Your task to perform on an android device: Go to Yahoo.com Image 0: 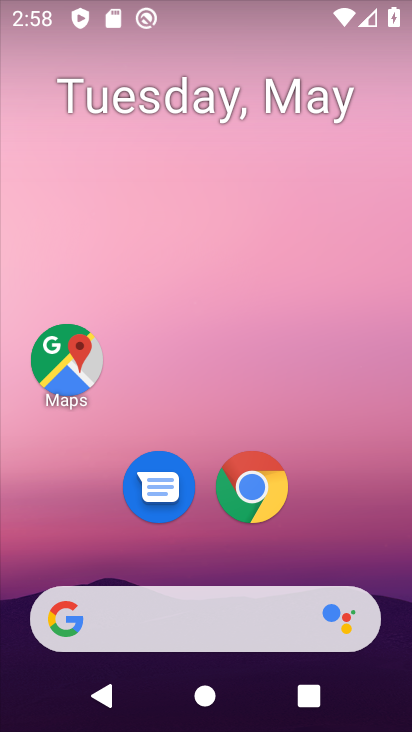
Step 0: drag from (229, 455) to (397, 603)
Your task to perform on an android device: Go to Yahoo.com Image 1: 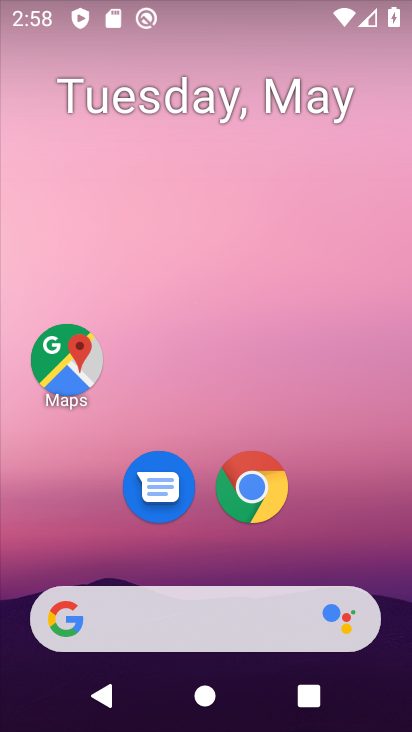
Step 1: drag from (238, 289) to (232, 23)
Your task to perform on an android device: Go to Yahoo.com Image 2: 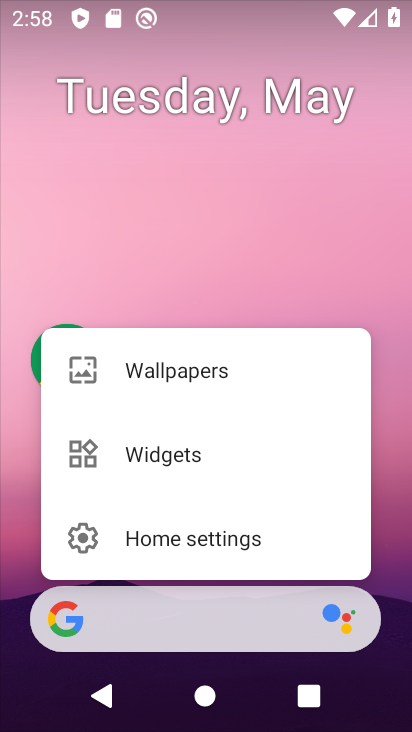
Step 2: click (237, 284)
Your task to perform on an android device: Go to Yahoo.com Image 3: 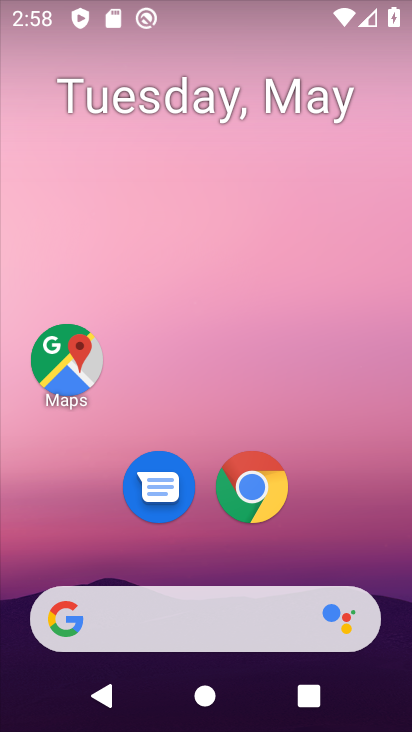
Step 3: drag from (249, 584) to (194, 52)
Your task to perform on an android device: Go to Yahoo.com Image 4: 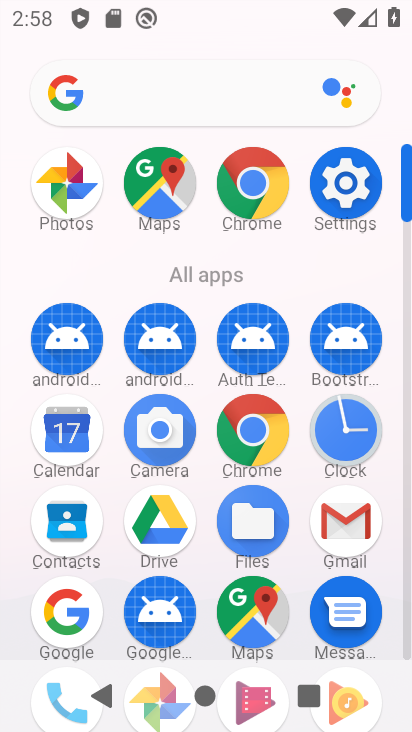
Step 4: click (260, 418)
Your task to perform on an android device: Go to Yahoo.com Image 5: 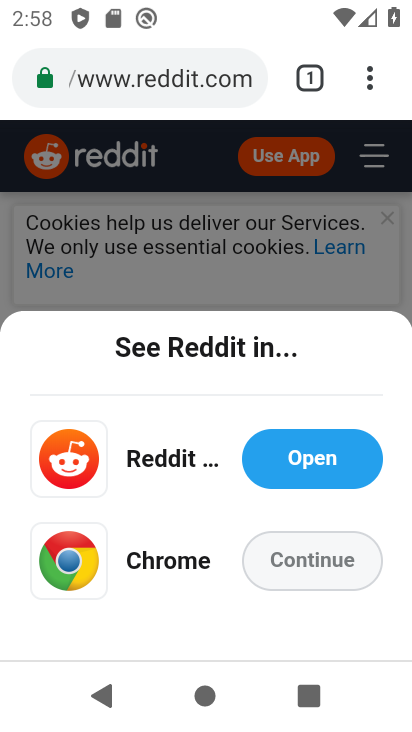
Step 5: click (306, 78)
Your task to perform on an android device: Go to Yahoo.com Image 6: 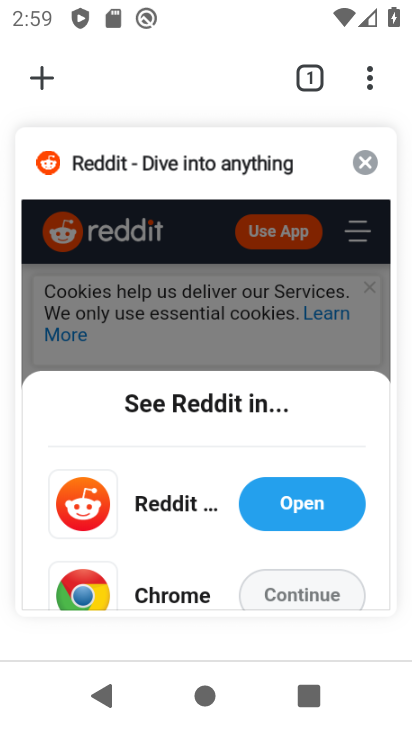
Step 6: click (300, 586)
Your task to perform on an android device: Go to Yahoo.com Image 7: 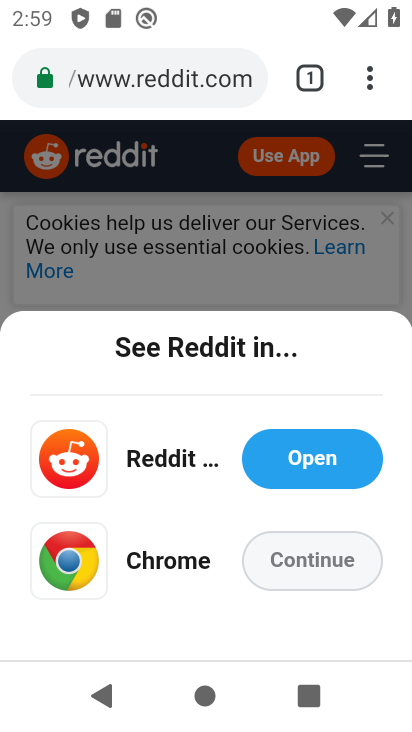
Step 7: click (298, 70)
Your task to perform on an android device: Go to Yahoo.com Image 8: 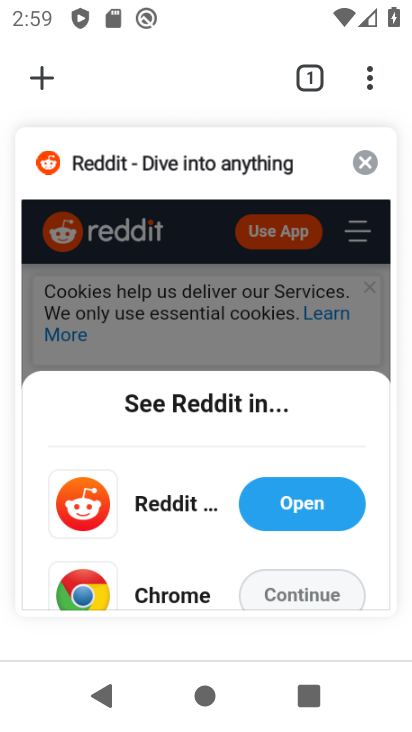
Step 8: click (35, 62)
Your task to perform on an android device: Go to Yahoo.com Image 9: 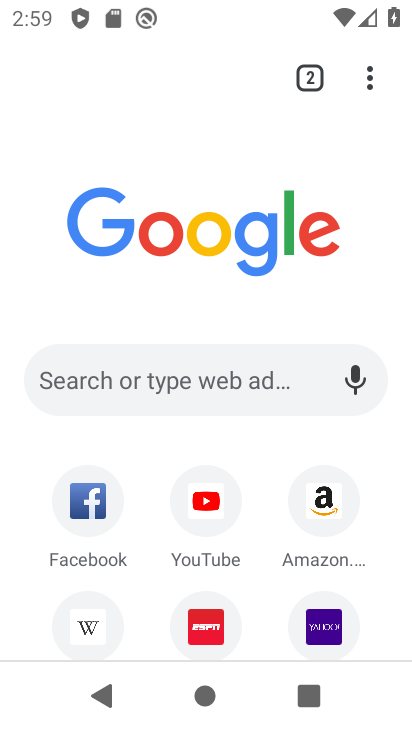
Step 9: click (309, 622)
Your task to perform on an android device: Go to Yahoo.com Image 10: 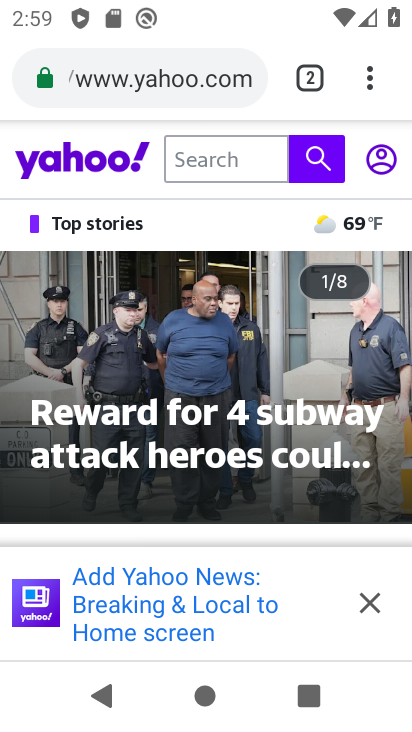
Step 10: task complete